Your task to perform on an android device: turn off notifications settings in the gmail app Image 0: 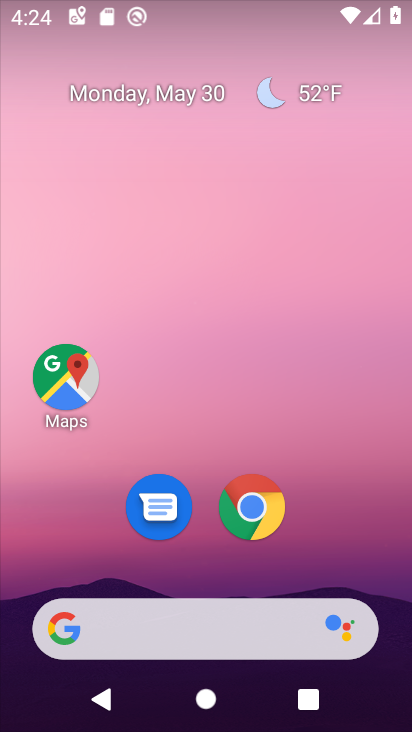
Step 0: drag from (307, 559) to (309, 471)
Your task to perform on an android device: turn off notifications settings in the gmail app Image 1: 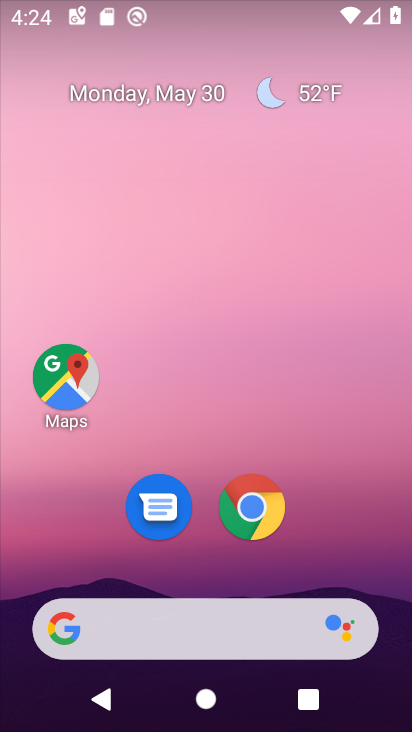
Step 1: drag from (320, 572) to (313, 138)
Your task to perform on an android device: turn off notifications settings in the gmail app Image 2: 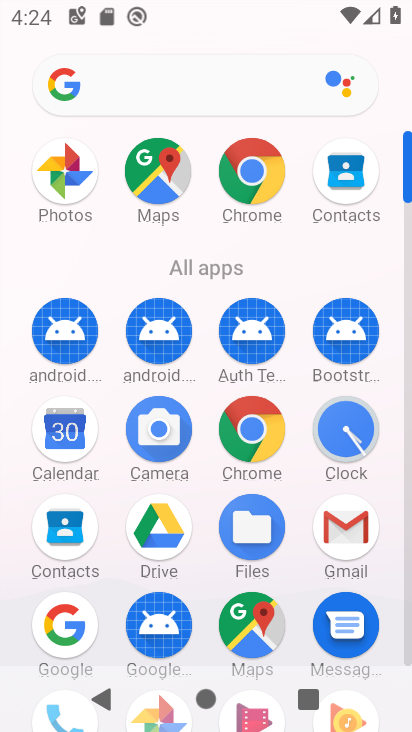
Step 2: click (345, 521)
Your task to perform on an android device: turn off notifications settings in the gmail app Image 3: 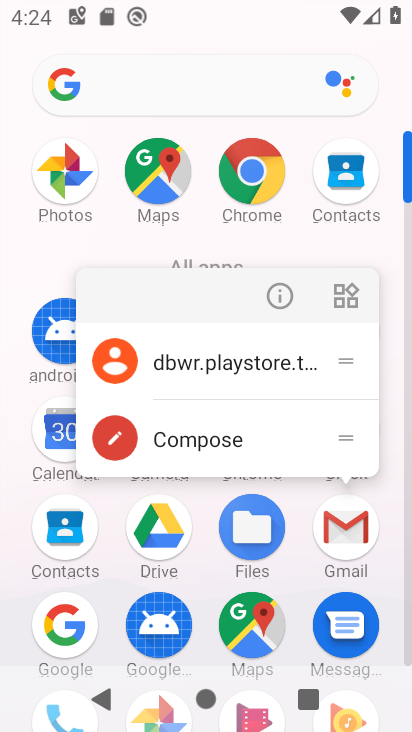
Step 3: click (274, 289)
Your task to perform on an android device: turn off notifications settings in the gmail app Image 4: 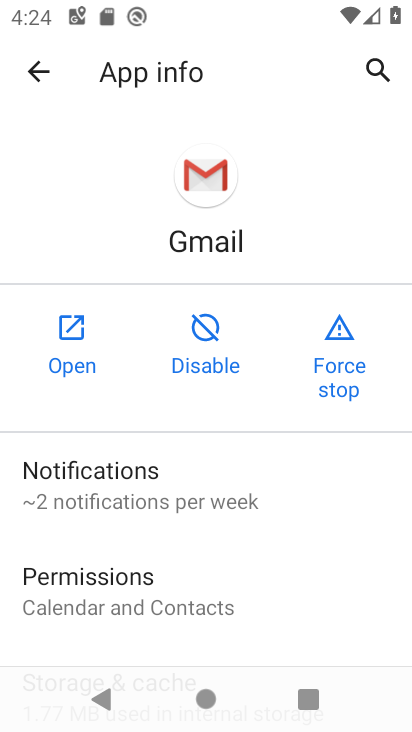
Step 4: click (141, 503)
Your task to perform on an android device: turn off notifications settings in the gmail app Image 5: 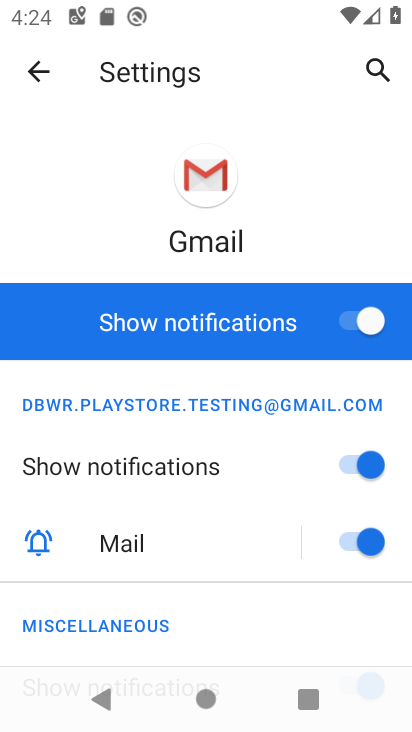
Step 5: click (338, 316)
Your task to perform on an android device: turn off notifications settings in the gmail app Image 6: 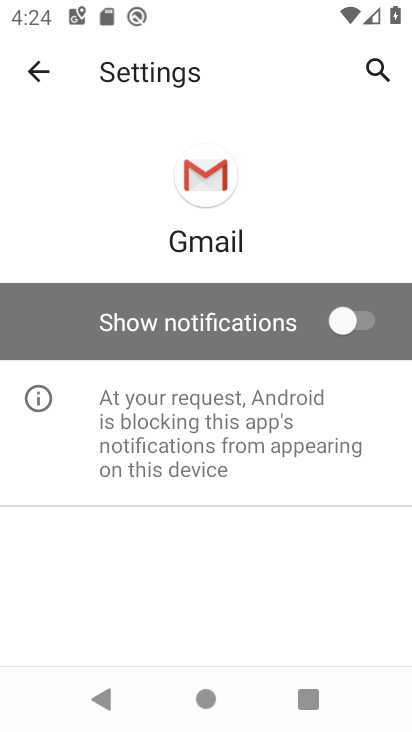
Step 6: task complete